Your task to perform on an android device: Go to Amazon Image 0: 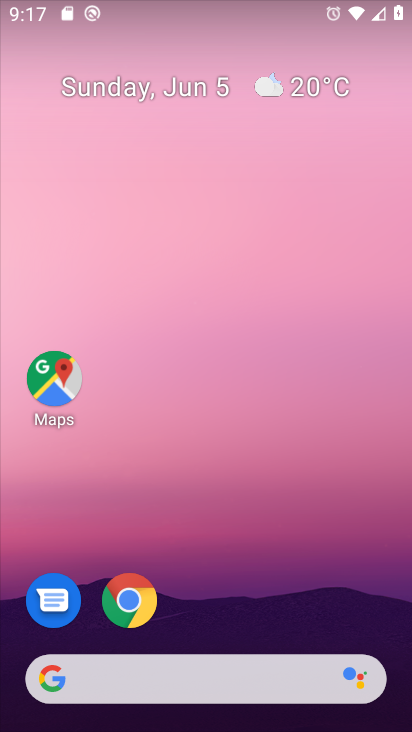
Step 0: click (131, 599)
Your task to perform on an android device: Go to Amazon Image 1: 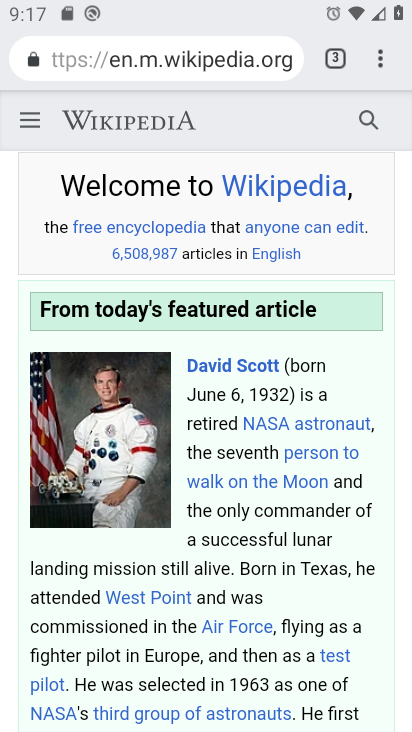
Step 1: click (370, 62)
Your task to perform on an android device: Go to Amazon Image 2: 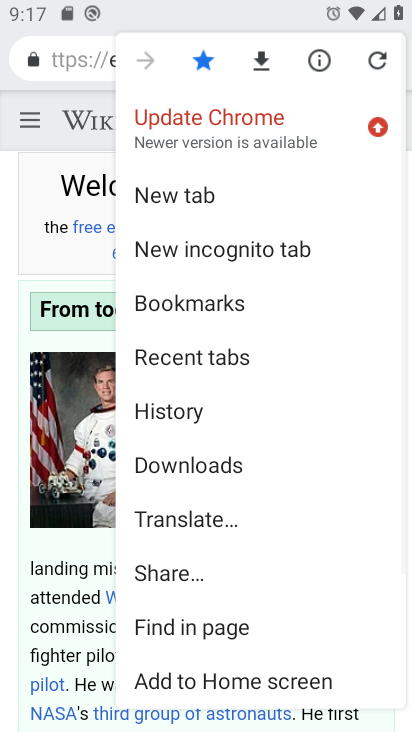
Step 2: click (256, 182)
Your task to perform on an android device: Go to Amazon Image 3: 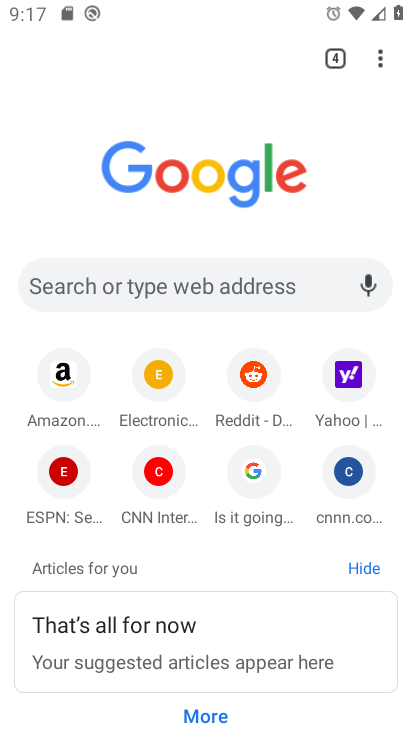
Step 3: click (62, 369)
Your task to perform on an android device: Go to Amazon Image 4: 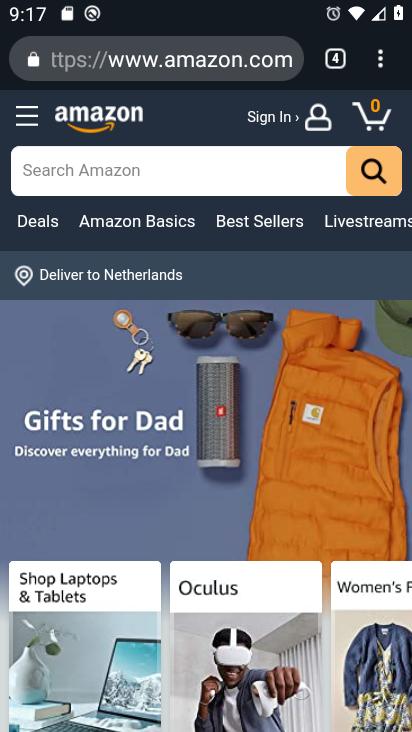
Step 4: task complete